Your task to perform on an android device: turn on sleep mode Image 0: 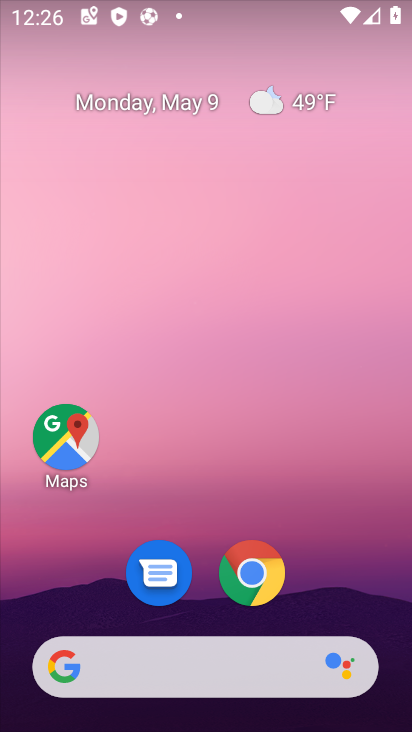
Step 0: drag from (222, 727) to (217, 176)
Your task to perform on an android device: turn on sleep mode Image 1: 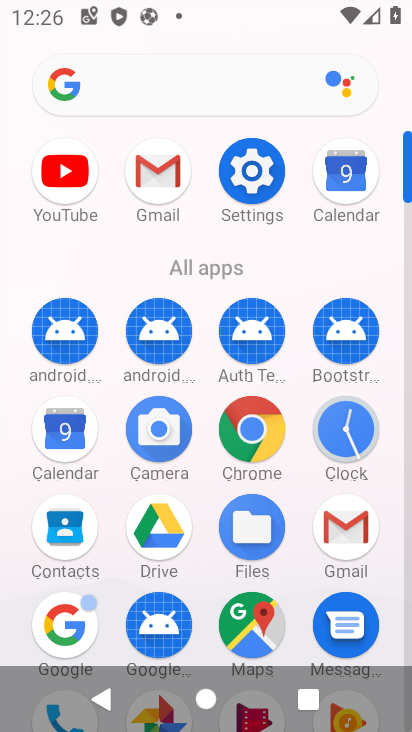
Step 1: click (258, 176)
Your task to perform on an android device: turn on sleep mode Image 2: 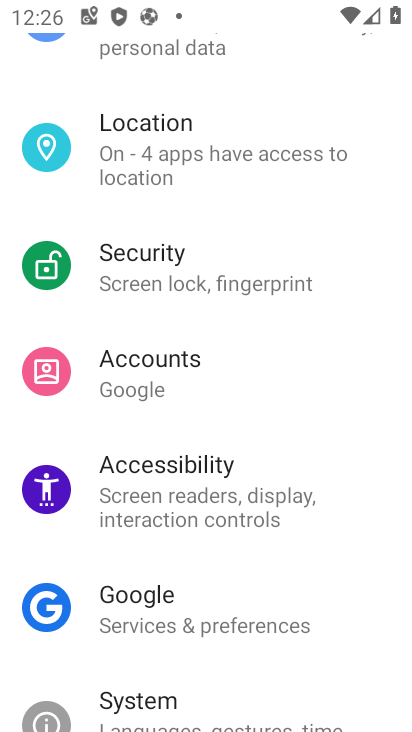
Step 2: drag from (272, 679) to (251, 215)
Your task to perform on an android device: turn on sleep mode Image 3: 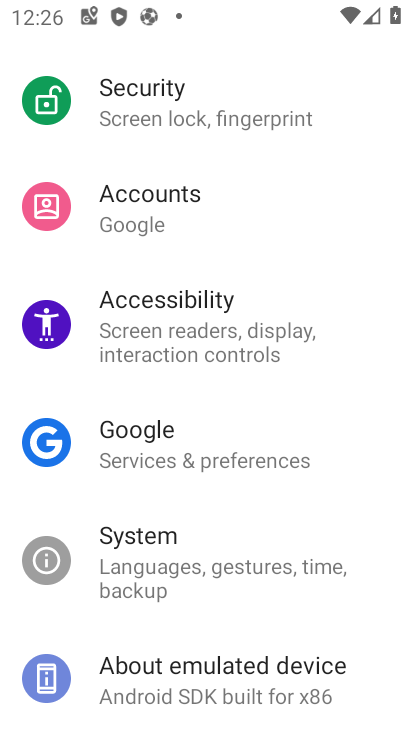
Step 3: drag from (258, 166) to (317, 716)
Your task to perform on an android device: turn on sleep mode Image 4: 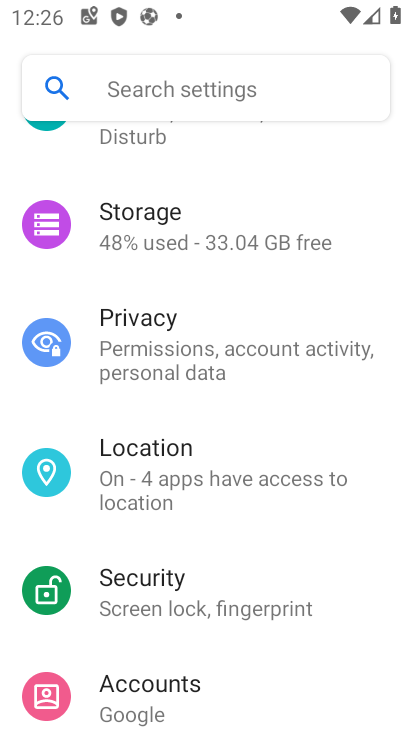
Step 4: drag from (315, 227) to (282, 662)
Your task to perform on an android device: turn on sleep mode Image 5: 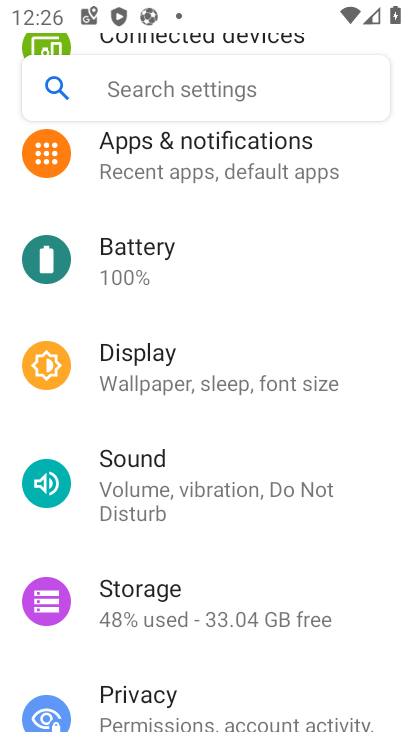
Step 5: click (280, 378)
Your task to perform on an android device: turn on sleep mode Image 6: 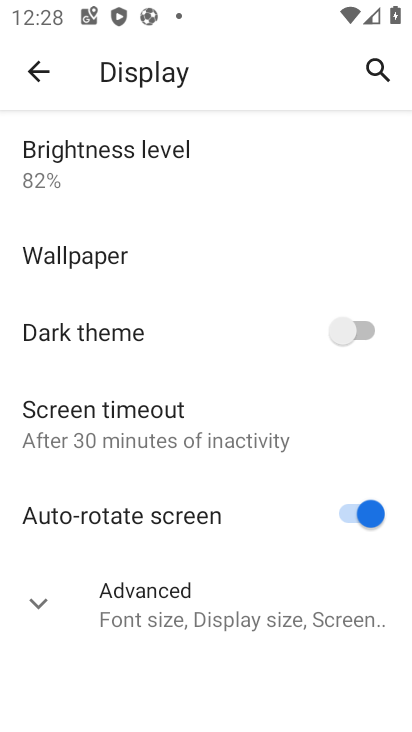
Step 6: click (39, 68)
Your task to perform on an android device: turn on sleep mode Image 7: 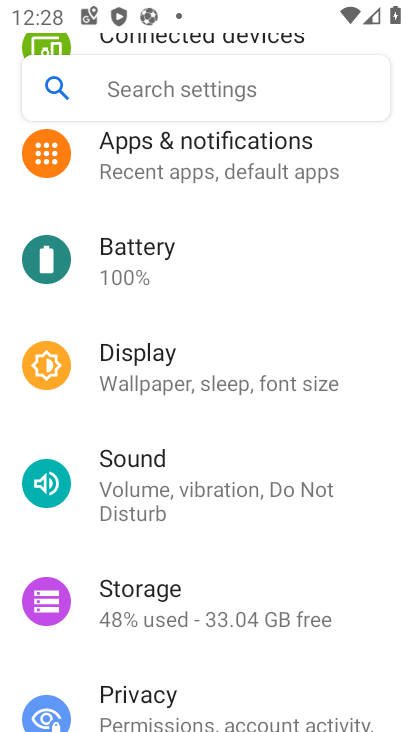
Step 7: click (289, 365)
Your task to perform on an android device: turn on sleep mode Image 8: 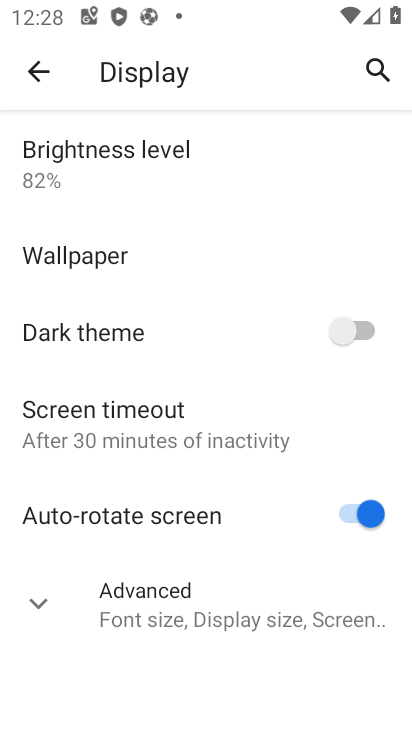
Step 8: task complete